Your task to perform on an android device: Open Youtube and go to "Your channel" Image 0: 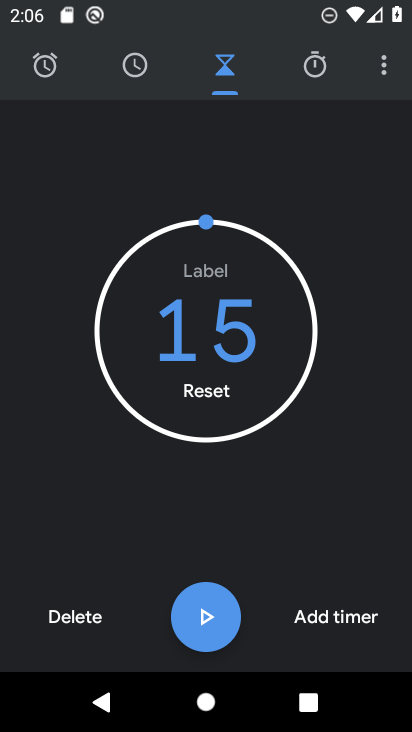
Step 0: press home button
Your task to perform on an android device: Open Youtube and go to "Your channel" Image 1: 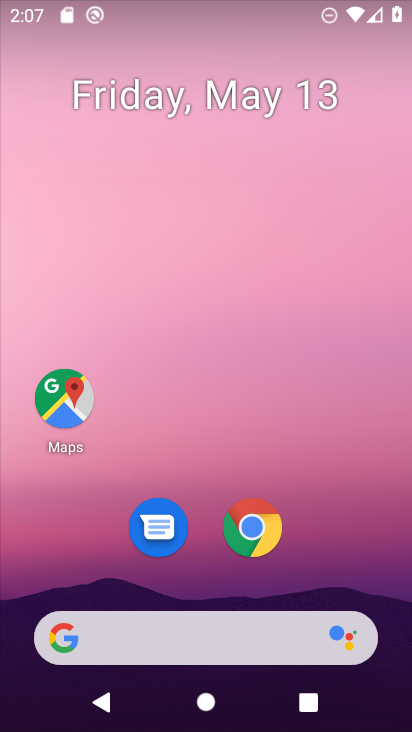
Step 1: drag from (398, 529) to (273, 129)
Your task to perform on an android device: Open Youtube and go to "Your channel" Image 2: 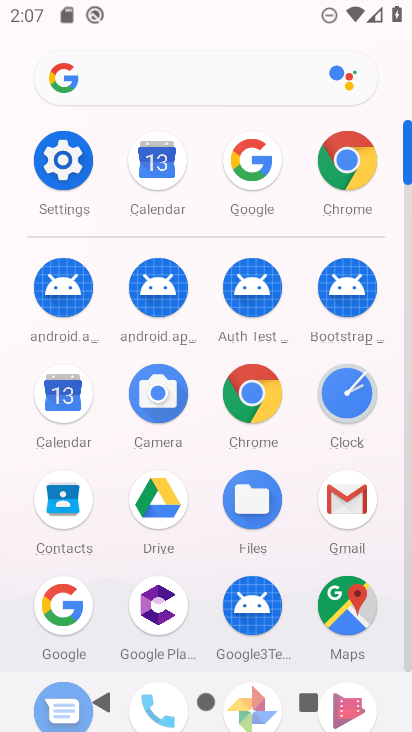
Step 2: drag from (212, 569) to (210, 194)
Your task to perform on an android device: Open Youtube and go to "Your channel" Image 3: 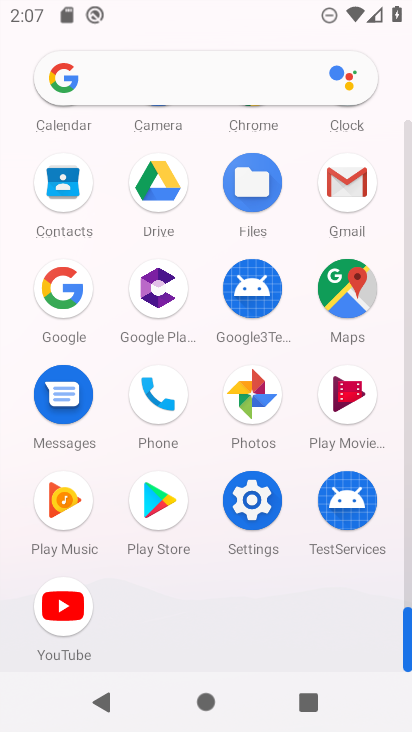
Step 3: click (48, 611)
Your task to perform on an android device: Open Youtube and go to "Your channel" Image 4: 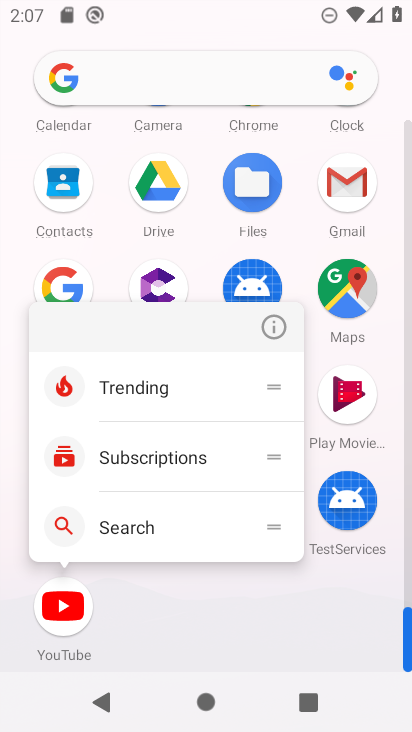
Step 4: click (55, 625)
Your task to perform on an android device: Open Youtube and go to "Your channel" Image 5: 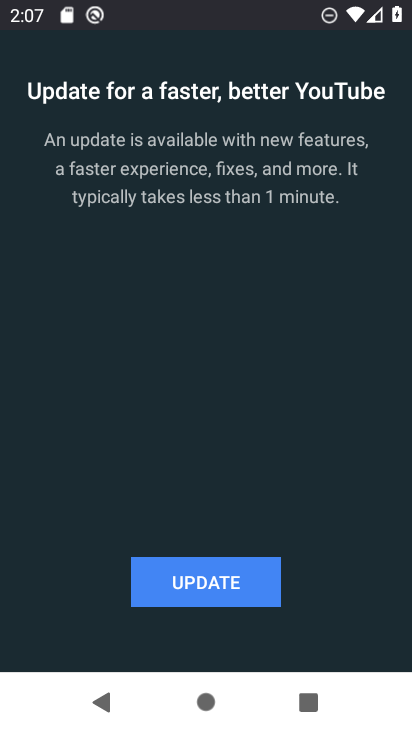
Step 5: click (239, 585)
Your task to perform on an android device: Open Youtube and go to "Your channel" Image 6: 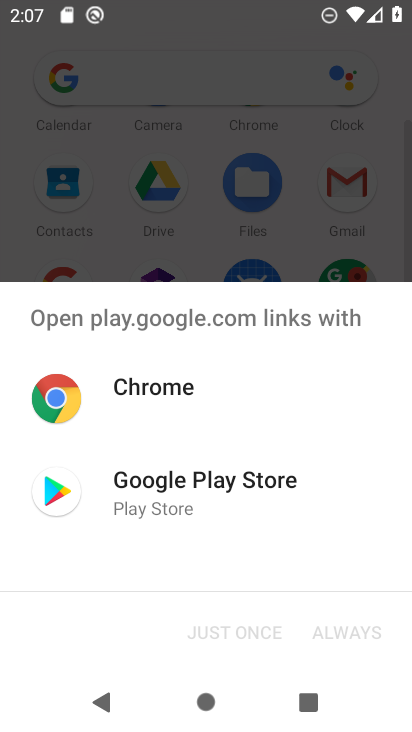
Step 6: click (209, 479)
Your task to perform on an android device: Open Youtube and go to "Your channel" Image 7: 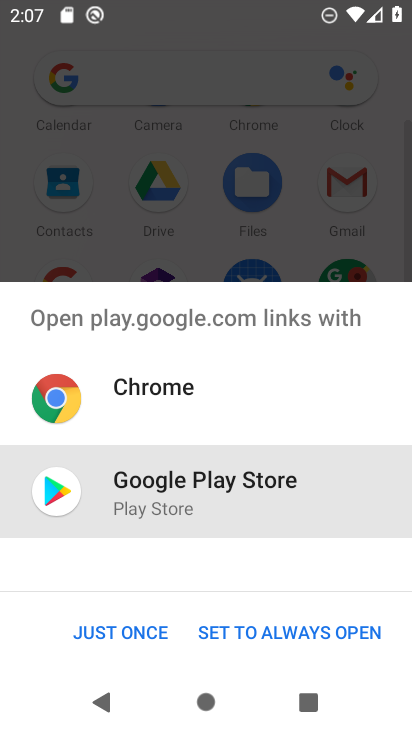
Step 7: click (105, 631)
Your task to perform on an android device: Open Youtube and go to "Your channel" Image 8: 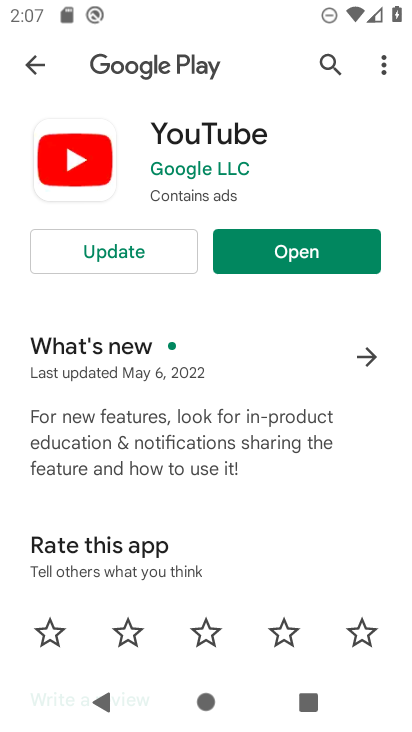
Step 8: click (153, 267)
Your task to perform on an android device: Open Youtube and go to "Your channel" Image 9: 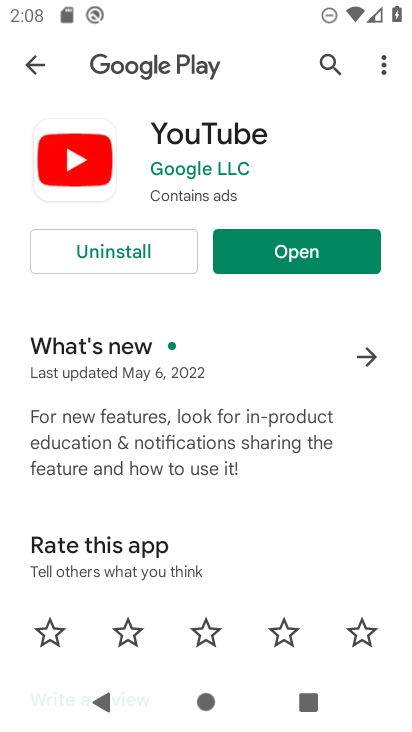
Step 9: click (326, 247)
Your task to perform on an android device: Open Youtube and go to "Your channel" Image 10: 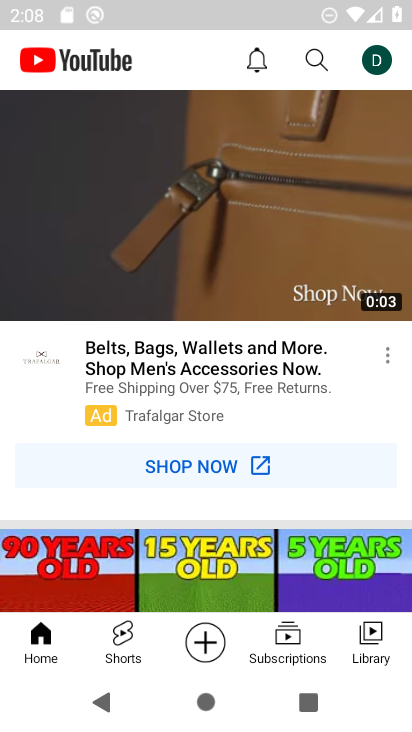
Step 10: click (369, 56)
Your task to perform on an android device: Open Youtube and go to "Your channel" Image 11: 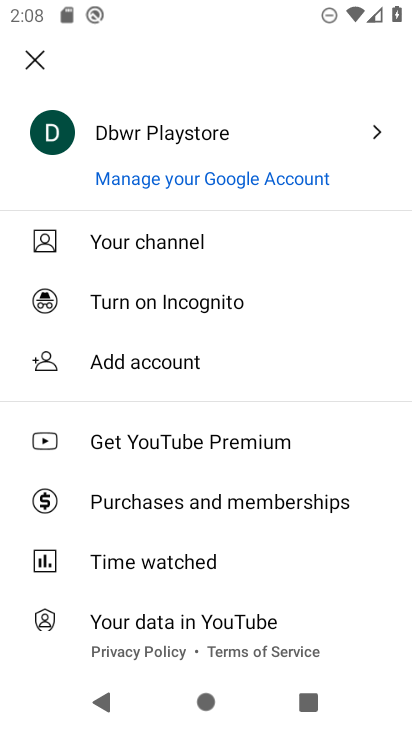
Step 11: click (203, 250)
Your task to perform on an android device: Open Youtube and go to "Your channel" Image 12: 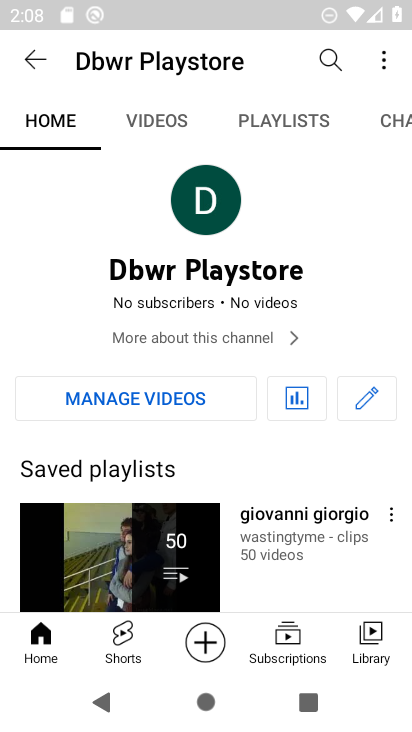
Step 12: task complete